Your task to perform on an android device: What's the weather? Image 0: 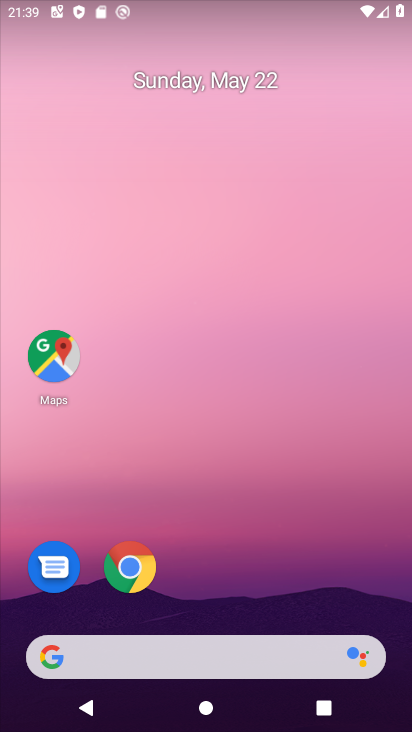
Step 0: drag from (287, 581) to (253, 293)
Your task to perform on an android device: What's the weather? Image 1: 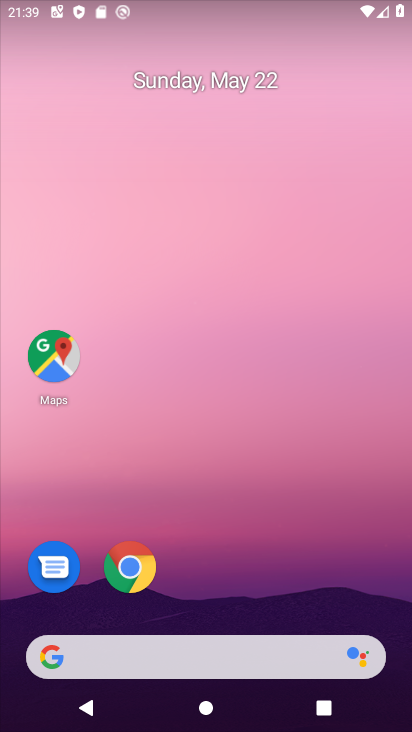
Step 1: click (114, 563)
Your task to perform on an android device: What's the weather? Image 2: 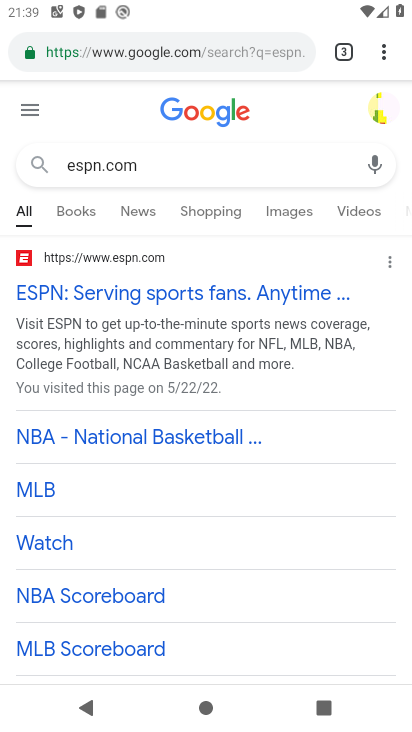
Step 2: click (252, 160)
Your task to perform on an android device: What's the weather? Image 3: 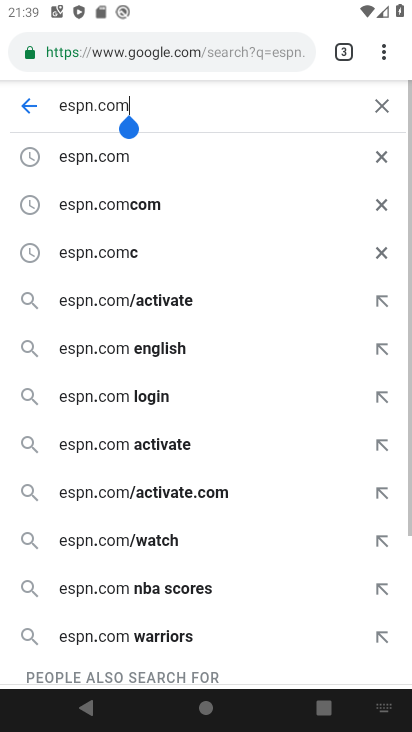
Step 3: click (377, 58)
Your task to perform on an android device: What's the weather? Image 4: 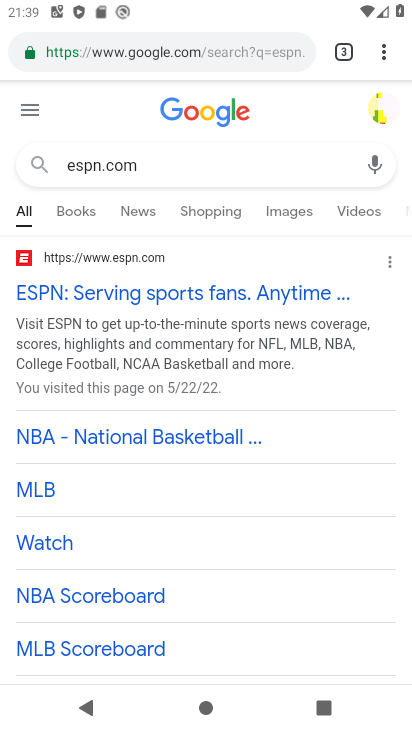
Step 4: click (380, 50)
Your task to perform on an android device: What's the weather? Image 5: 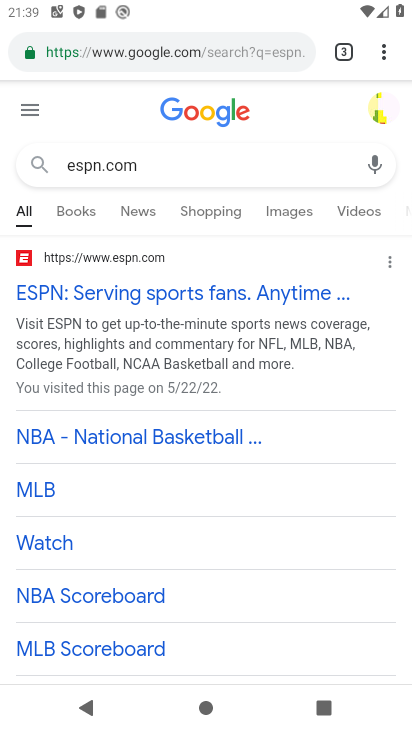
Step 5: click (364, 43)
Your task to perform on an android device: What's the weather? Image 6: 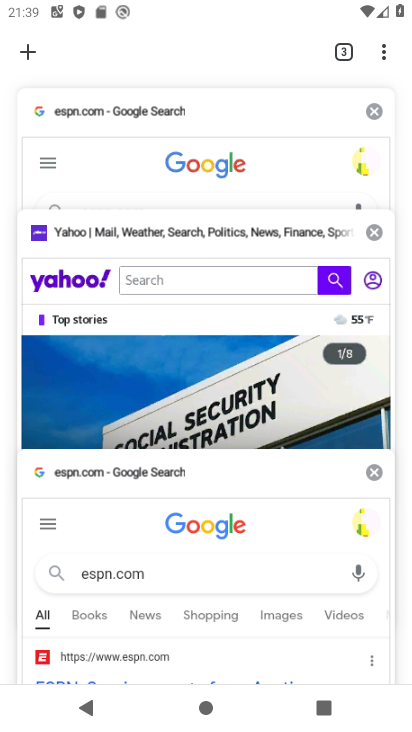
Step 6: click (22, 46)
Your task to perform on an android device: What's the weather? Image 7: 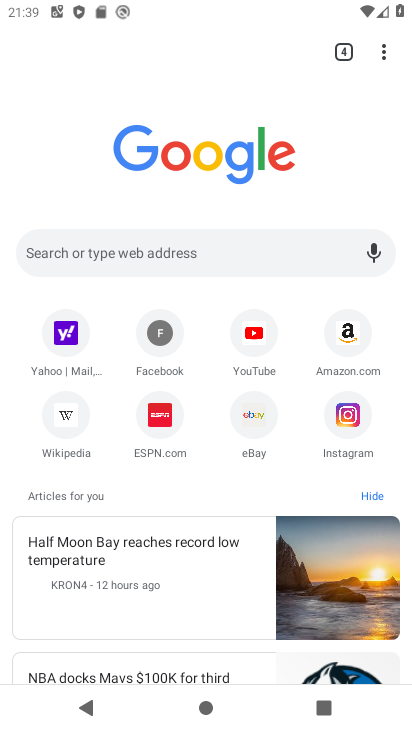
Step 7: click (181, 239)
Your task to perform on an android device: What's the weather? Image 8: 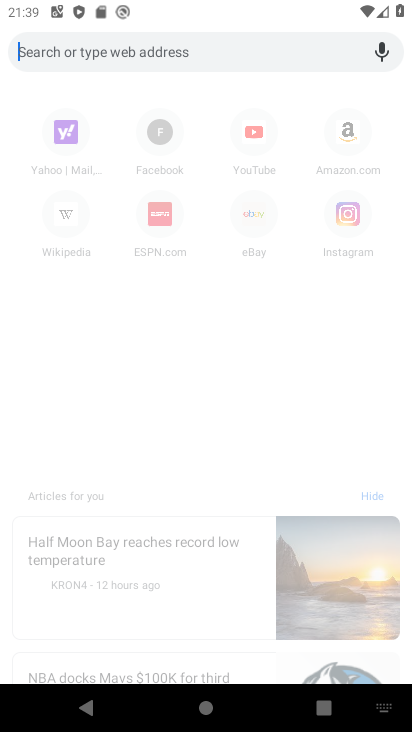
Step 8: type "What's the weather?"
Your task to perform on an android device: What's the weather? Image 9: 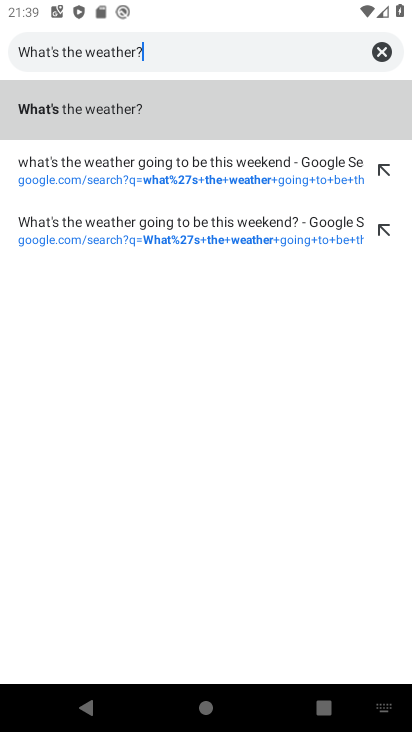
Step 9: click (189, 118)
Your task to perform on an android device: What's the weather? Image 10: 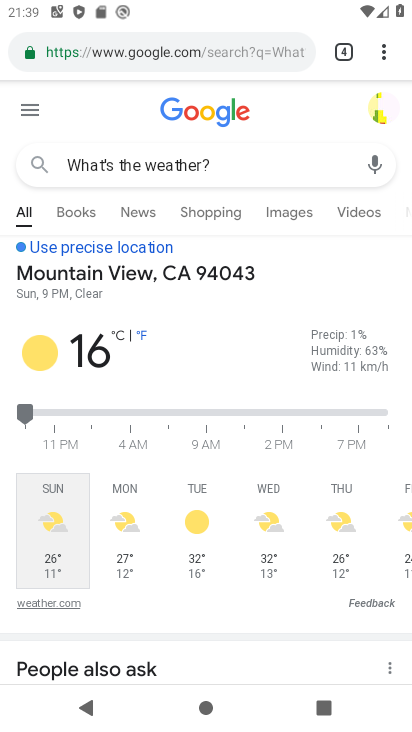
Step 10: task complete